Your task to perform on an android device: What is the news today? Image 0: 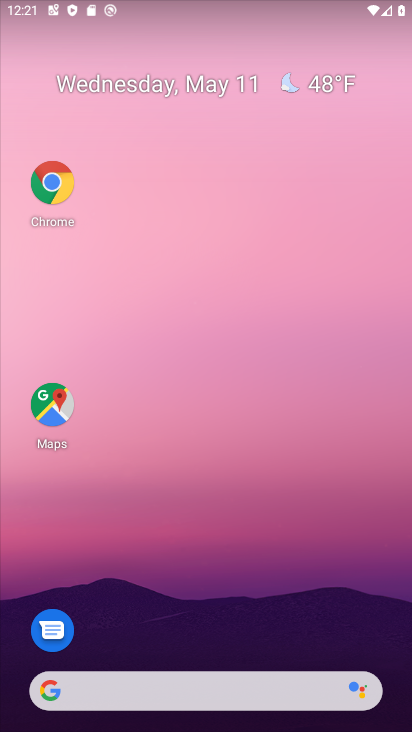
Step 0: drag from (31, 316) to (339, 330)
Your task to perform on an android device: What is the news today? Image 1: 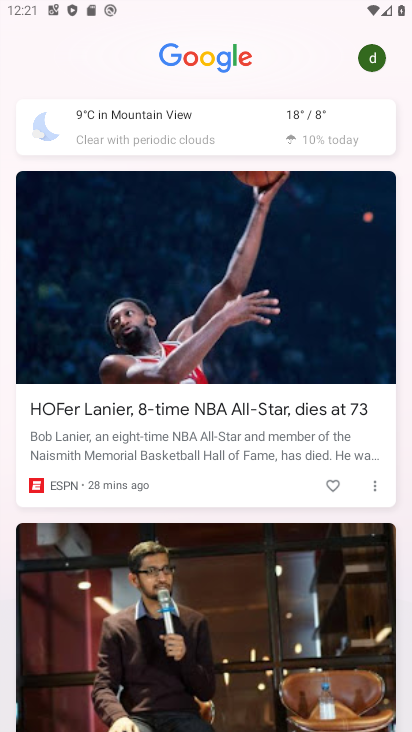
Step 1: task complete